Your task to perform on an android device: Show me popular videos on Youtube Image 0: 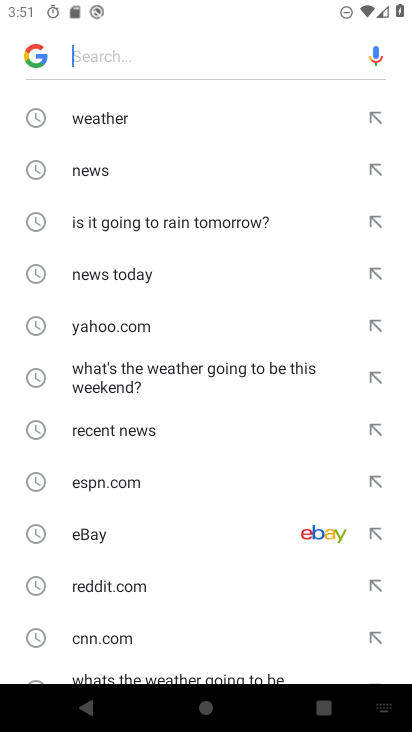
Step 0: press home button
Your task to perform on an android device: Show me popular videos on Youtube Image 1: 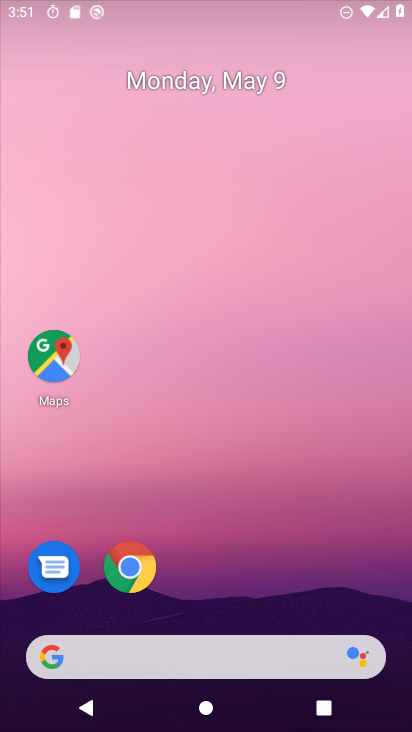
Step 1: drag from (255, 583) to (256, 211)
Your task to perform on an android device: Show me popular videos on Youtube Image 2: 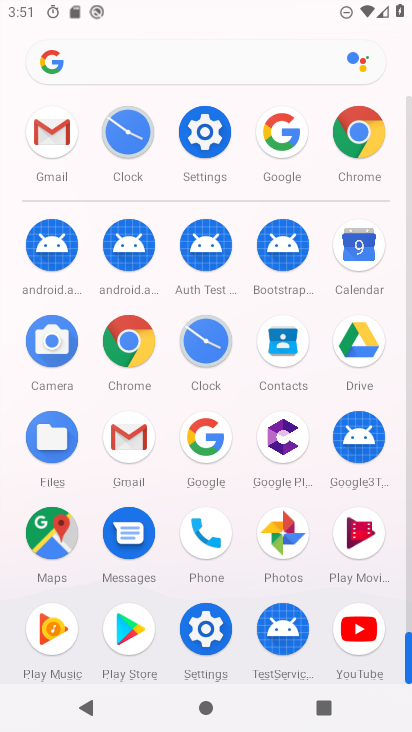
Step 2: click (360, 631)
Your task to perform on an android device: Show me popular videos on Youtube Image 3: 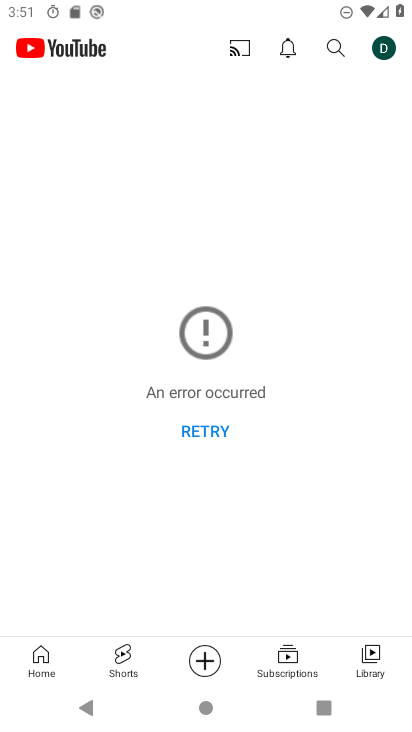
Step 3: click (327, 46)
Your task to perform on an android device: Show me popular videos on Youtube Image 4: 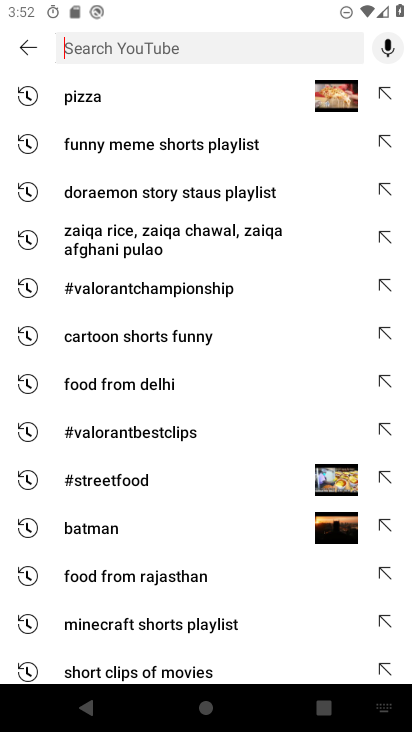
Step 4: type "popular videos"
Your task to perform on an android device: Show me popular videos on Youtube Image 5: 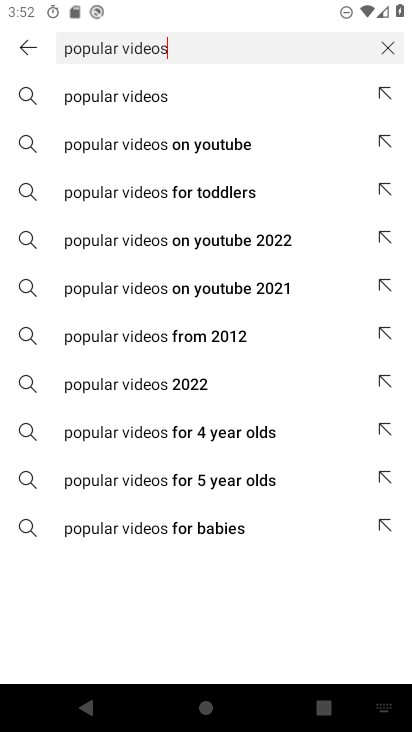
Step 5: click (193, 103)
Your task to perform on an android device: Show me popular videos on Youtube Image 6: 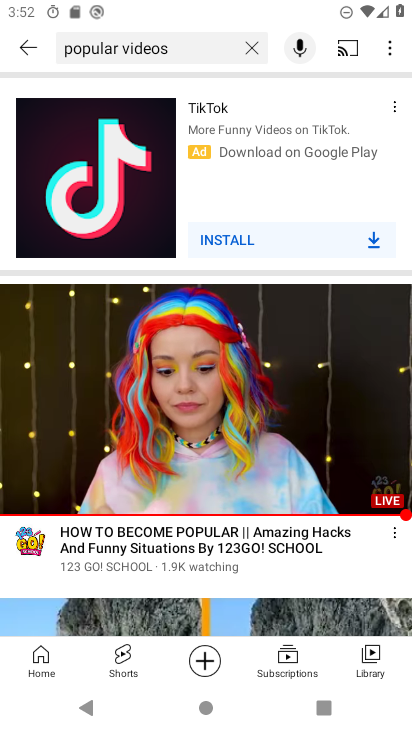
Step 6: task complete